Your task to perform on an android device: change the clock display to analog Image 0: 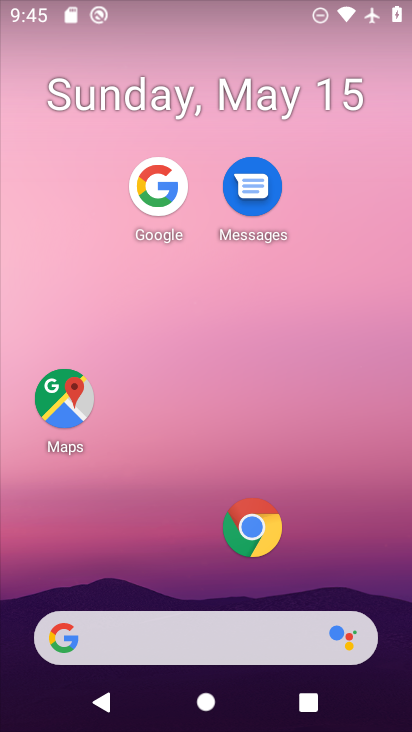
Step 0: drag from (221, 642) to (319, 239)
Your task to perform on an android device: change the clock display to analog Image 1: 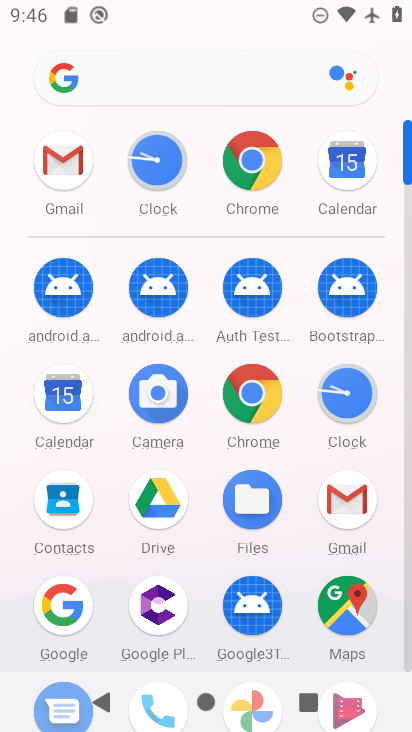
Step 1: click (351, 397)
Your task to perform on an android device: change the clock display to analog Image 2: 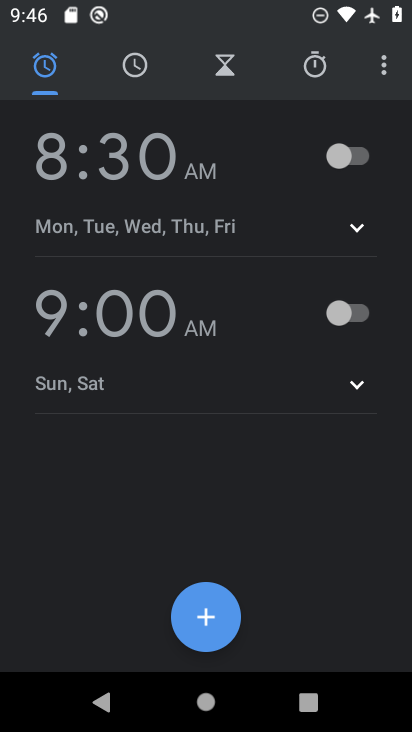
Step 2: click (379, 76)
Your task to perform on an android device: change the clock display to analog Image 3: 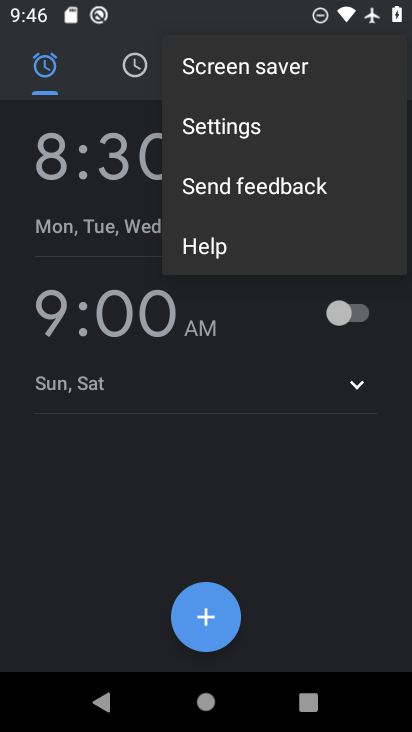
Step 3: click (240, 123)
Your task to perform on an android device: change the clock display to analog Image 4: 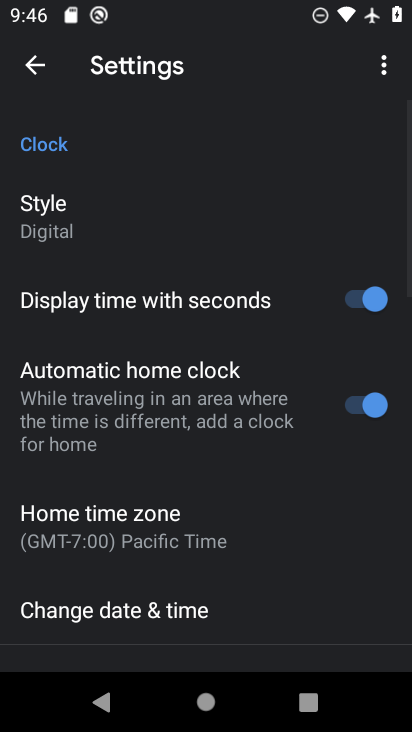
Step 4: click (46, 213)
Your task to perform on an android device: change the clock display to analog Image 5: 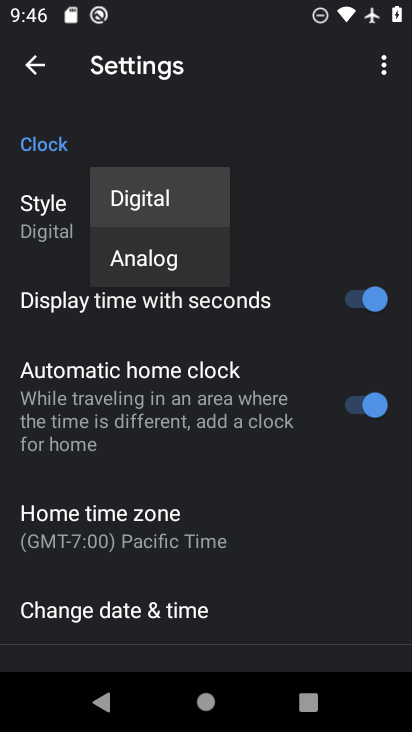
Step 5: click (164, 259)
Your task to perform on an android device: change the clock display to analog Image 6: 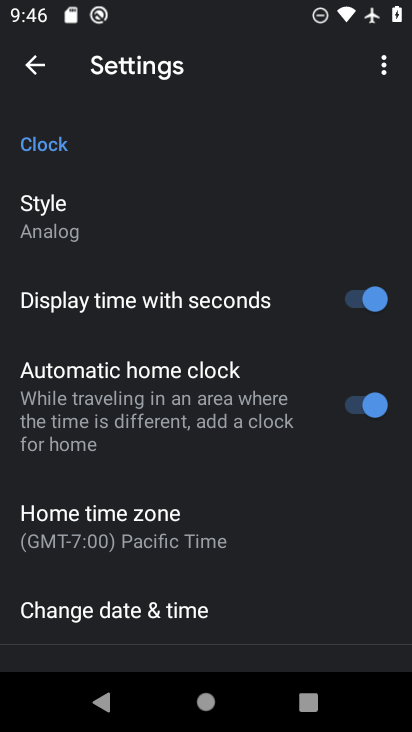
Step 6: task complete